Your task to perform on an android device: Go to Maps Image 0: 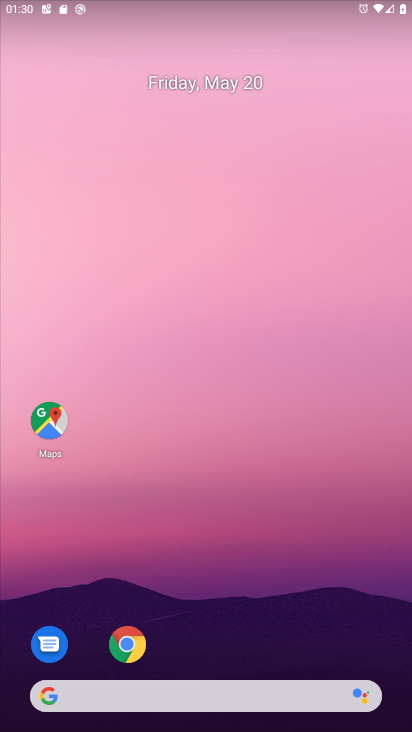
Step 0: click (53, 427)
Your task to perform on an android device: Go to Maps Image 1: 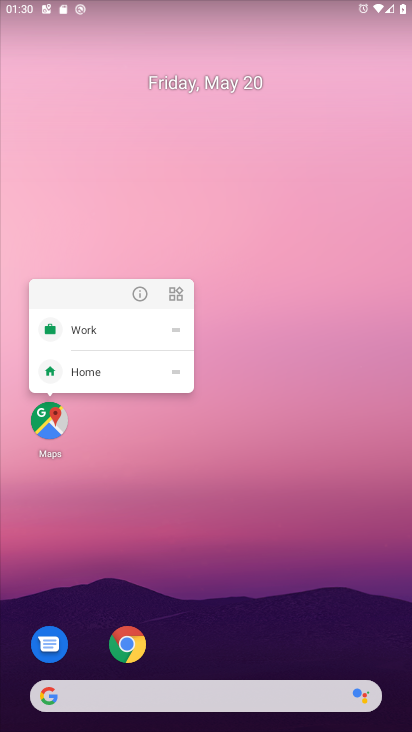
Step 1: click (43, 423)
Your task to perform on an android device: Go to Maps Image 2: 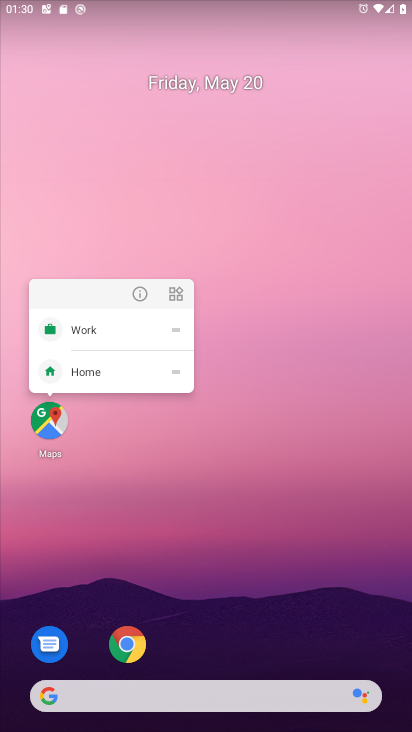
Step 2: click (53, 427)
Your task to perform on an android device: Go to Maps Image 3: 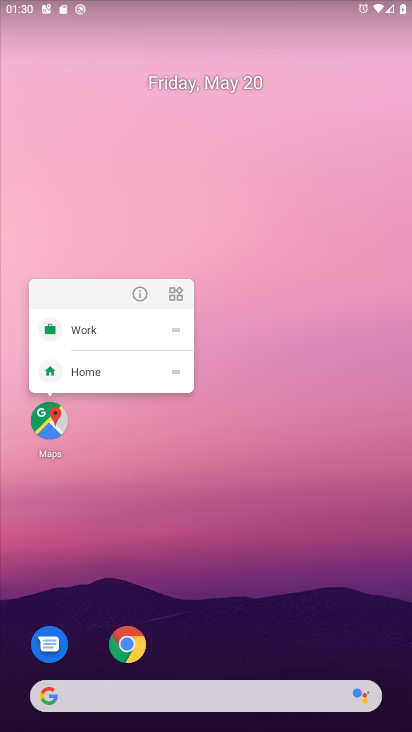
Step 3: click (50, 428)
Your task to perform on an android device: Go to Maps Image 4: 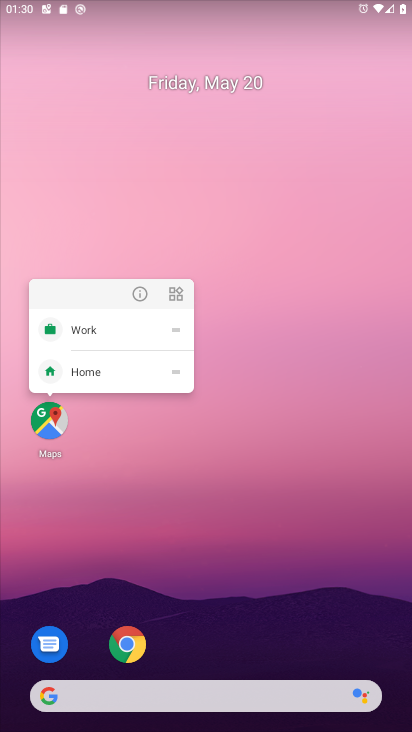
Step 4: click (47, 415)
Your task to perform on an android device: Go to Maps Image 5: 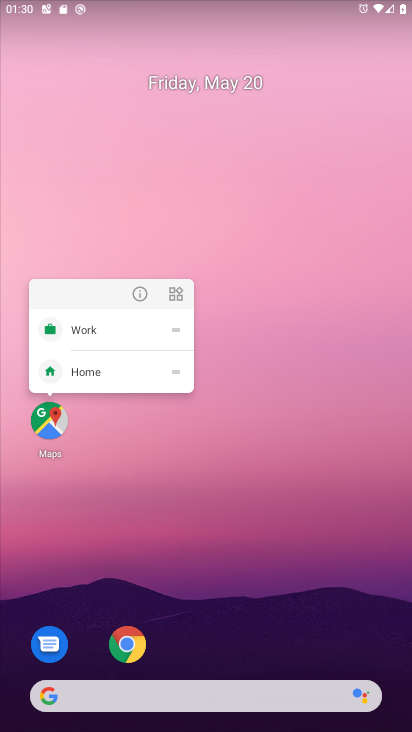
Step 5: click (59, 424)
Your task to perform on an android device: Go to Maps Image 6: 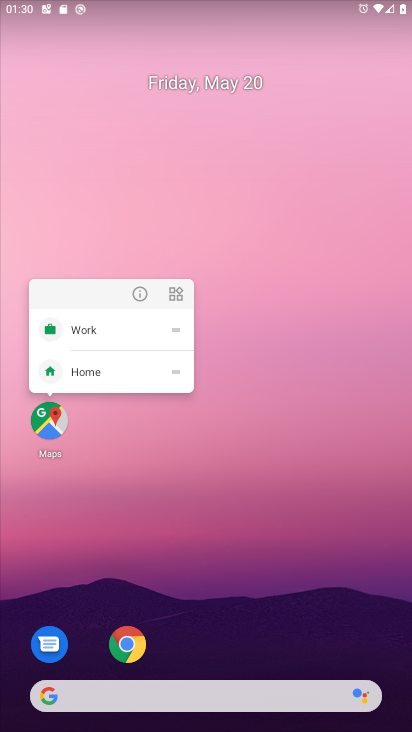
Step 6: click (49, 438)
Your task to perform on an android device: Go to Maps Image 7: 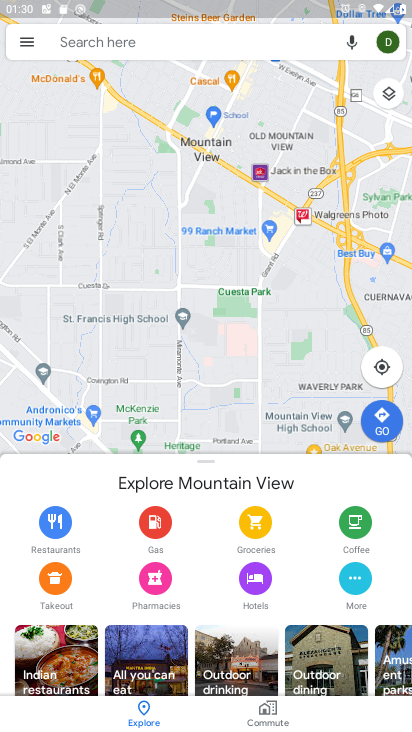
Step 7: task complete